Your task to perform on an android device: Search for "macbook" on target, select the first entry, add it to the cart, then select checkout. Image 0: 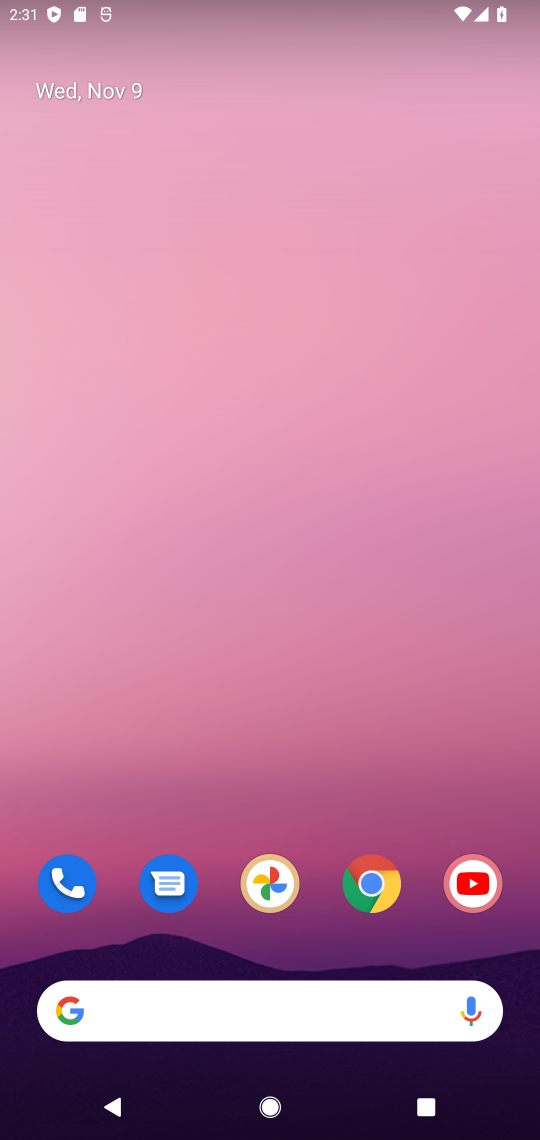
Step 0: click (378, 894)
Your task to perform on an android device: Search for "macbook" on target, select the first entry, add it to the cart, then select checkout. Image 1: 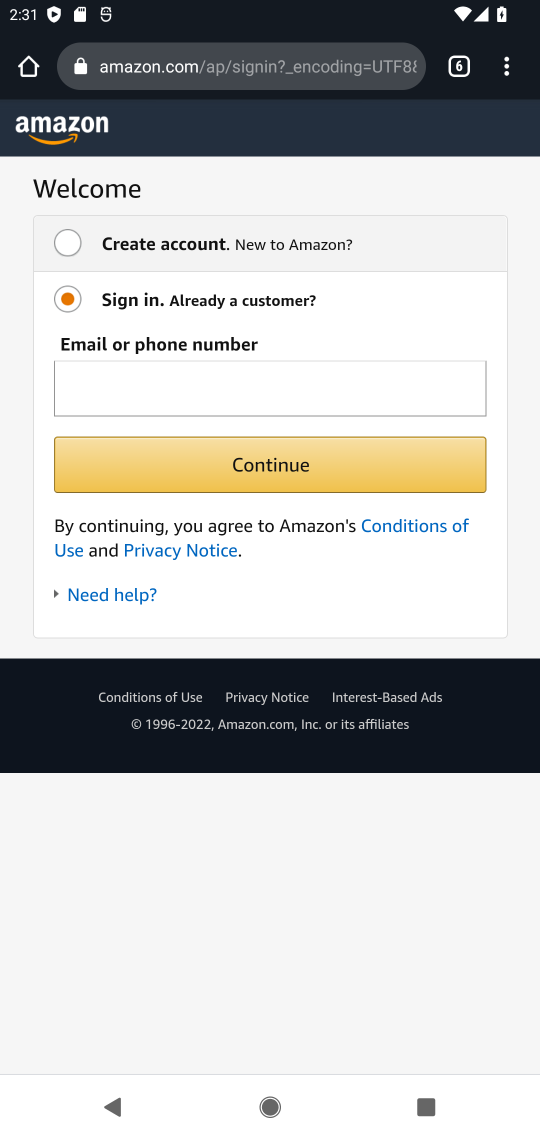
Step 1: click (464, 68)
Your task to perform on an android device: Search for "macbook" on target, select the first entry, add it to the cart, then select checkout. Image 2: 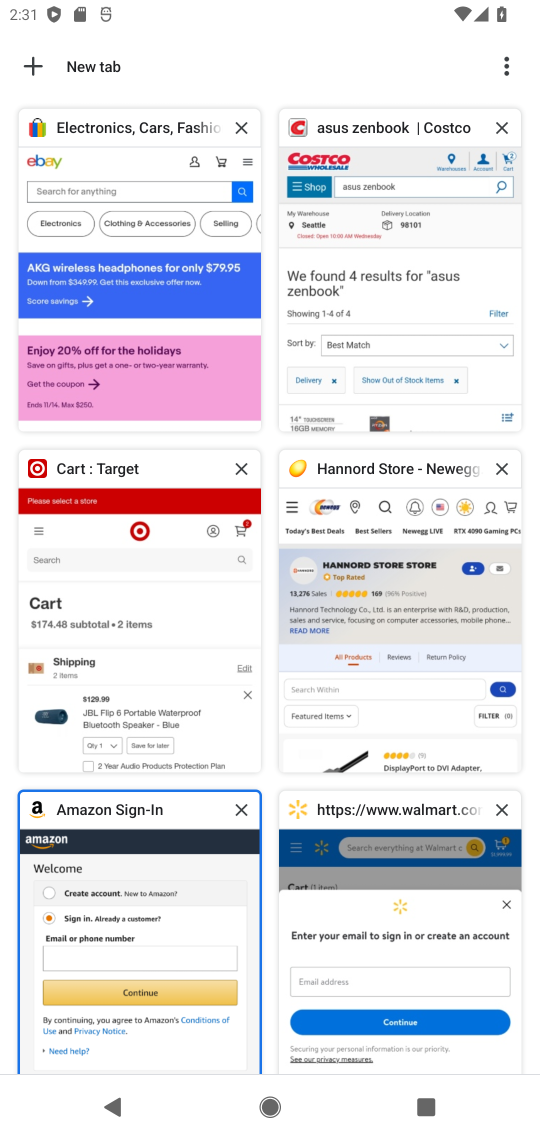
Step 2: click (166, 573)
Your task to perform on an android device: Search for "macbook" on target, select the first entry, add it to the cart, then select checkout. Image 3: 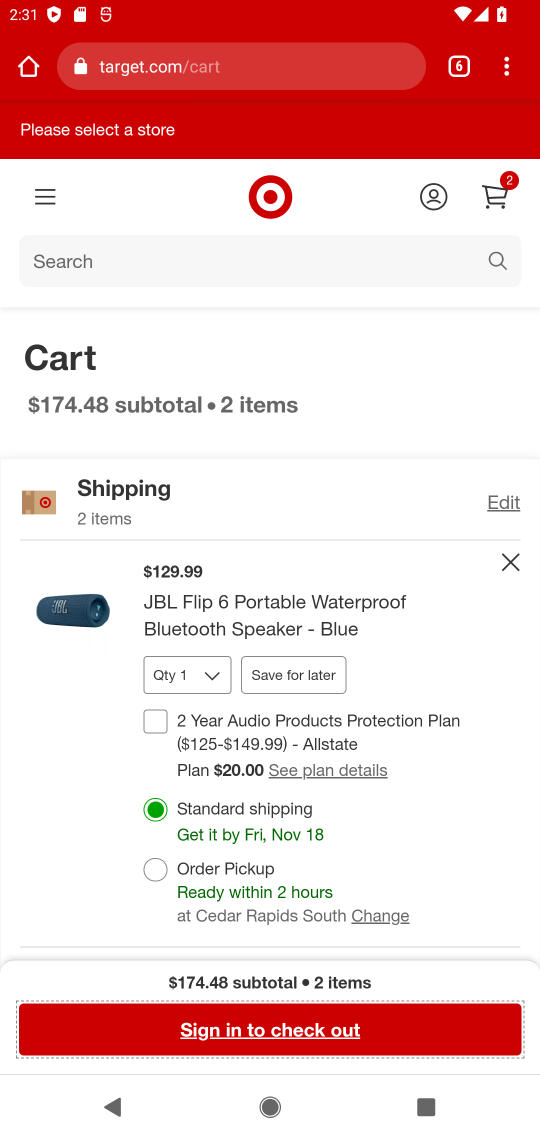
Step 3: click (134, 261)
Your task to perform on an android device: Search for "macbook" on target, select the first entry, add it to the cart, then select checkout. Image 4: 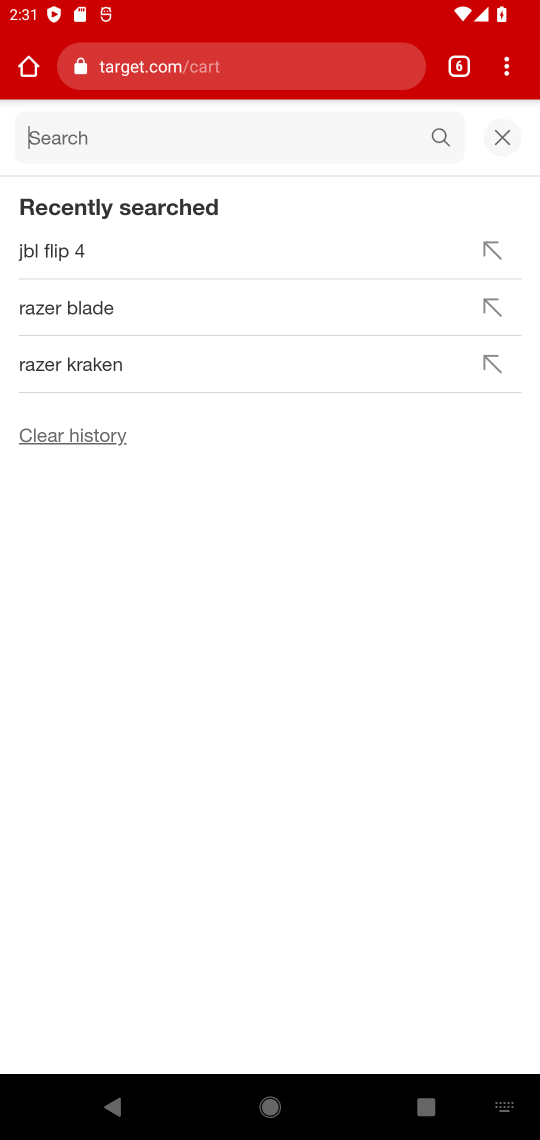
Step 4: type "macbook"
Your task to perform on an android device: Search for "macbook" on target, select the first entry, add it to the cart, then select checkout. Image 5: 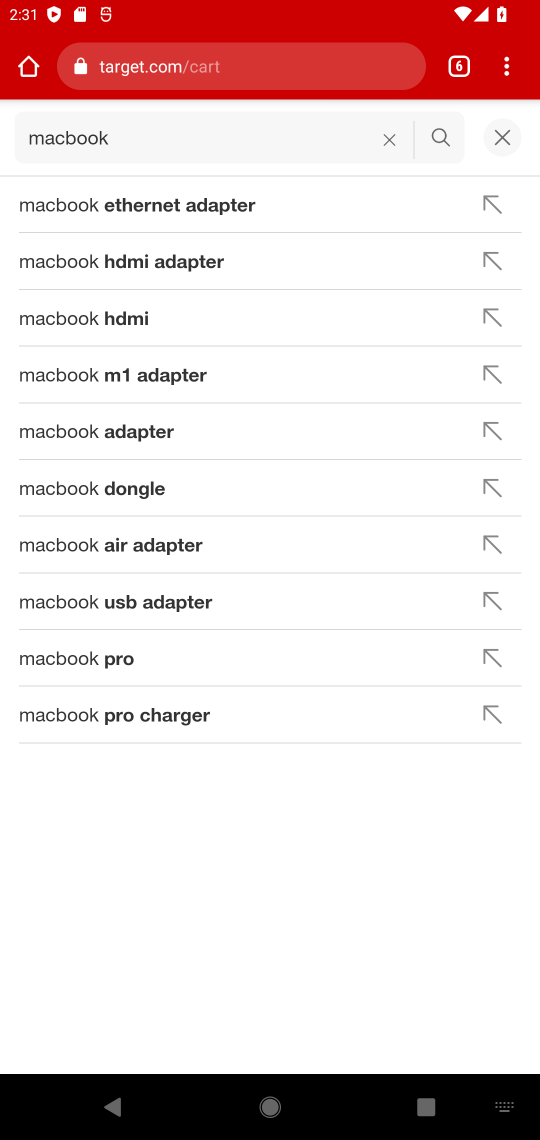
Step 5: click (153, 202)
Your task to perform on an android device: Search for "macbook" on target, select the first entry, add it to the cart, then select checkout. Image 6: 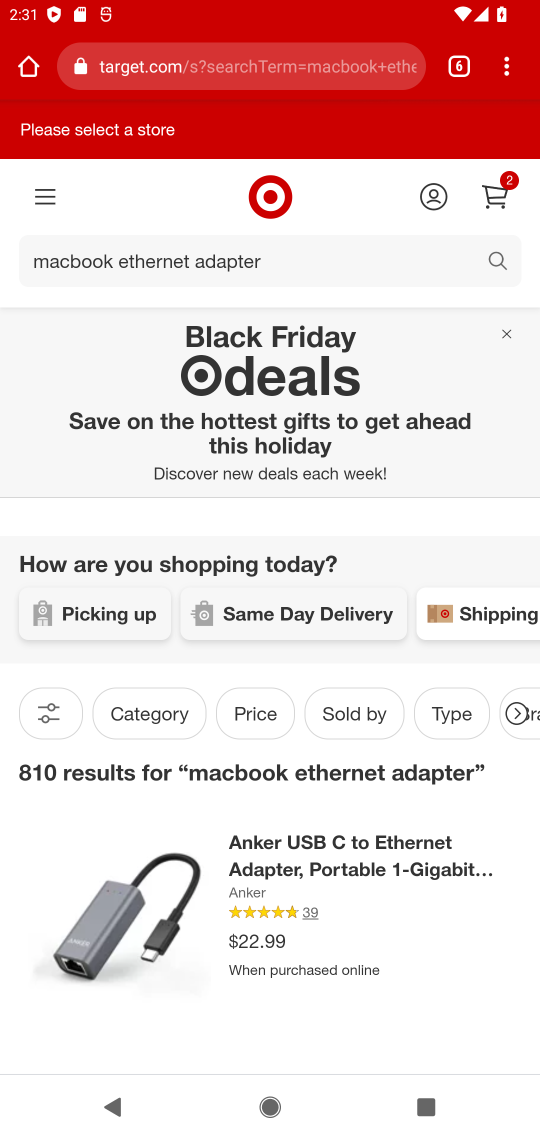
Step 6: task complete